Your task to perform on an android device: refresh tabs in the chrome app Image 0: 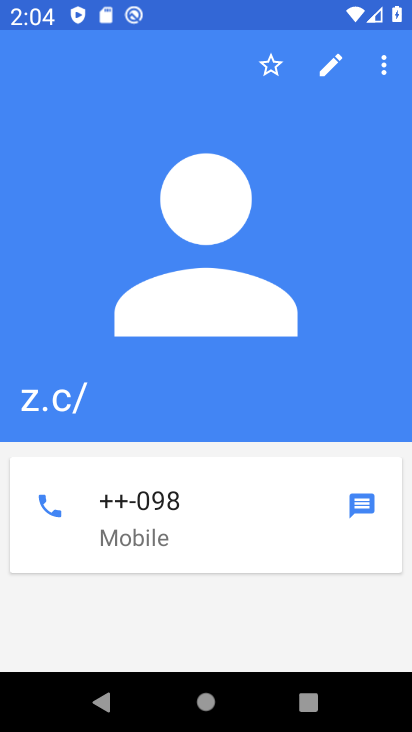
Step 0: press home button
Your task to perform on an android device: refresh tabs in the chrome app Image 1: 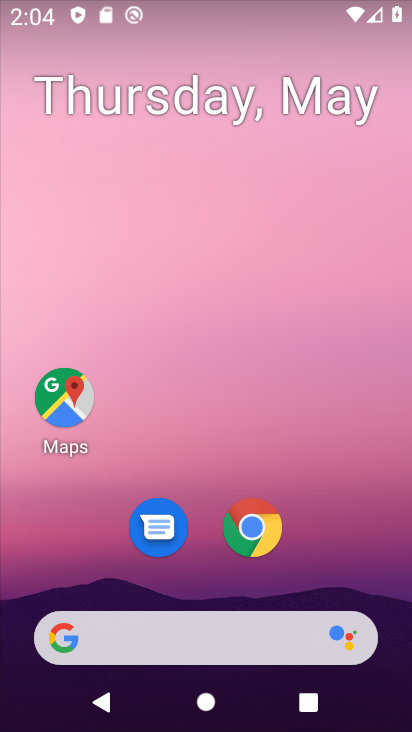
Step 1: click (270, 526)
Your task to perform on an android device: refresh tabs in the chrome app Image 2: 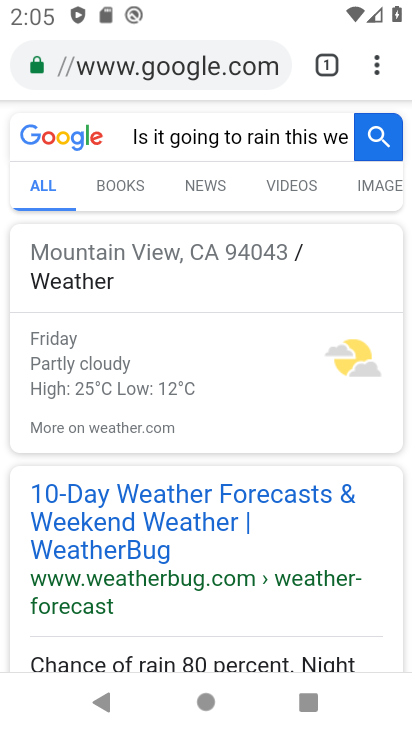
Step 2: click (380, 73)
Your task to perform on an android device: refresh tabs in the chrome app Image 3: 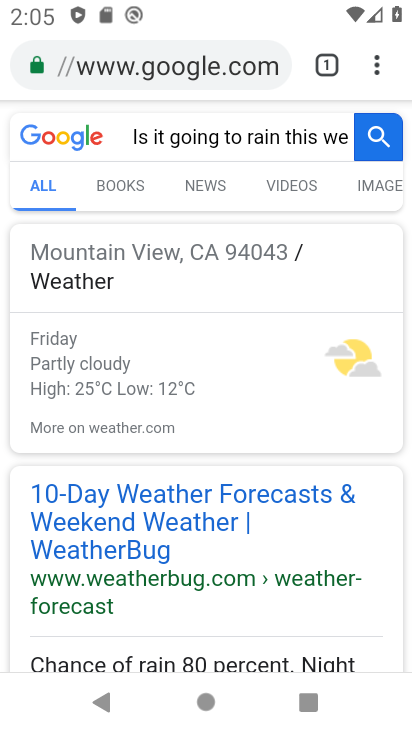
Step 3: task complete